Your task to perform on an android device: What's on the menu at Papa John's? Image 0: 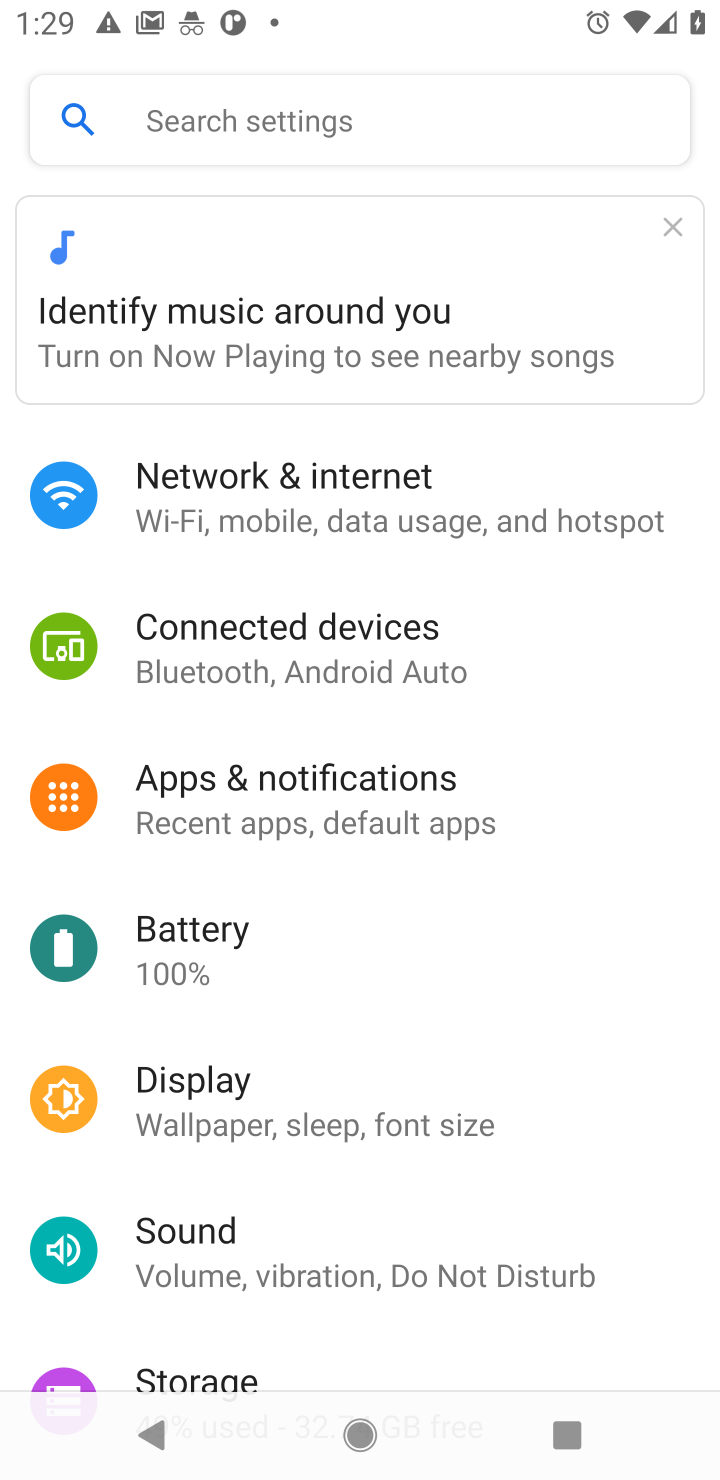
Step 0: press home button
Your task to perform on an android device: What's on the menu at Papa John's? Image 1: 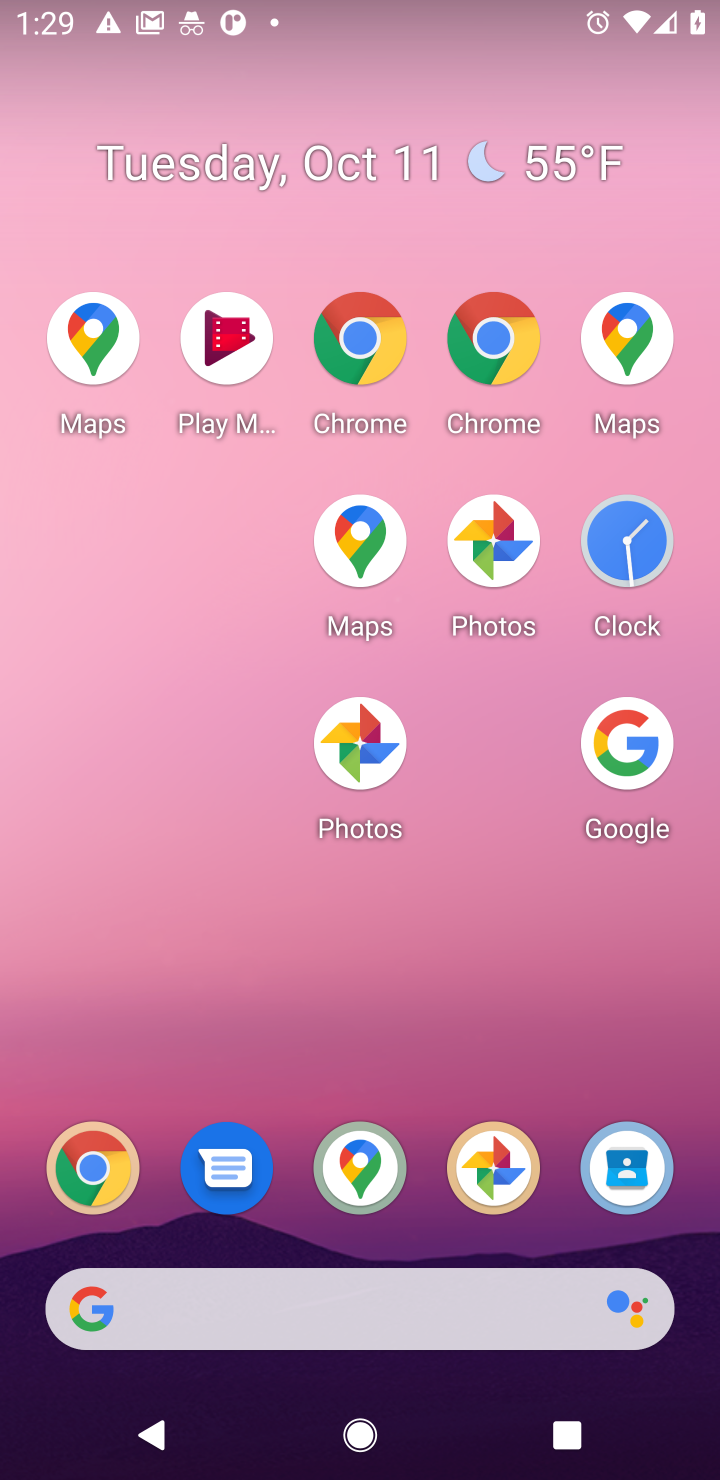
Step 1: drag from (442, 1224) to (574, 749)
Your task to perform on an android device: What's on the menu at Papa John's? Image 2: 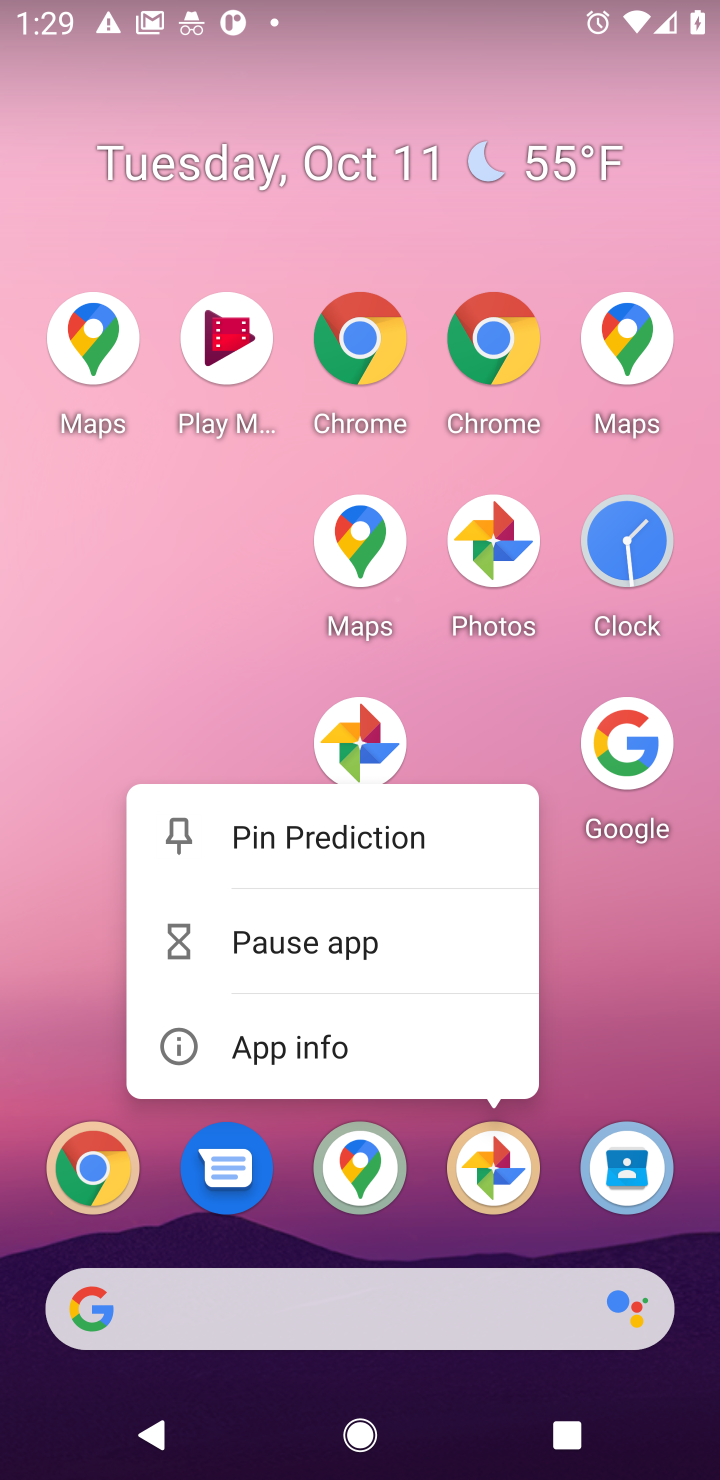
Step 2: click (243, 668)
Your task to perform on an android device: What's on the menu at Papa John's? Image 3: 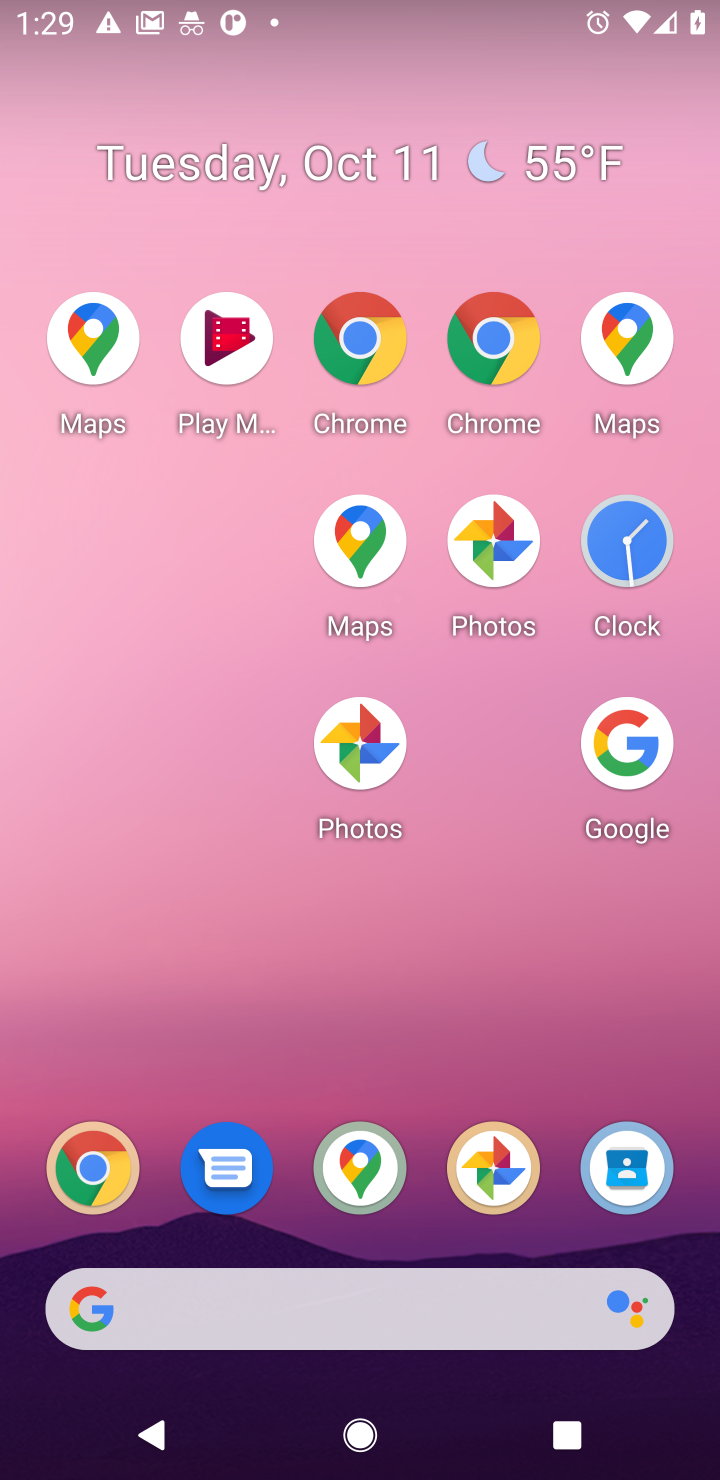
Step 3: drag from (376, 943) to (386, 278)
Your task to perform on an android device: What's on the menu at Papa John's? Image 4: 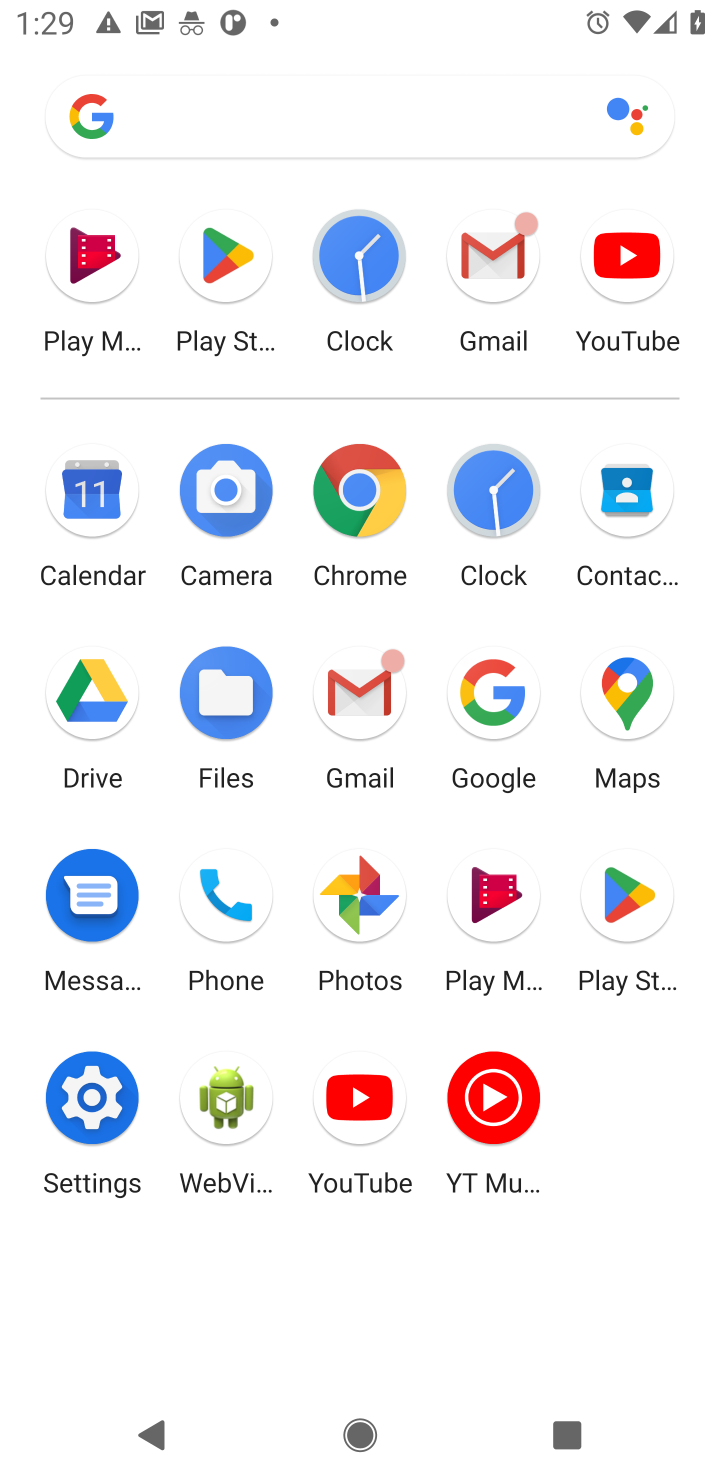
Step 4: click (507, 728)
Your task to perform on an android device: What's on the menu at Papa John's? Image 5: 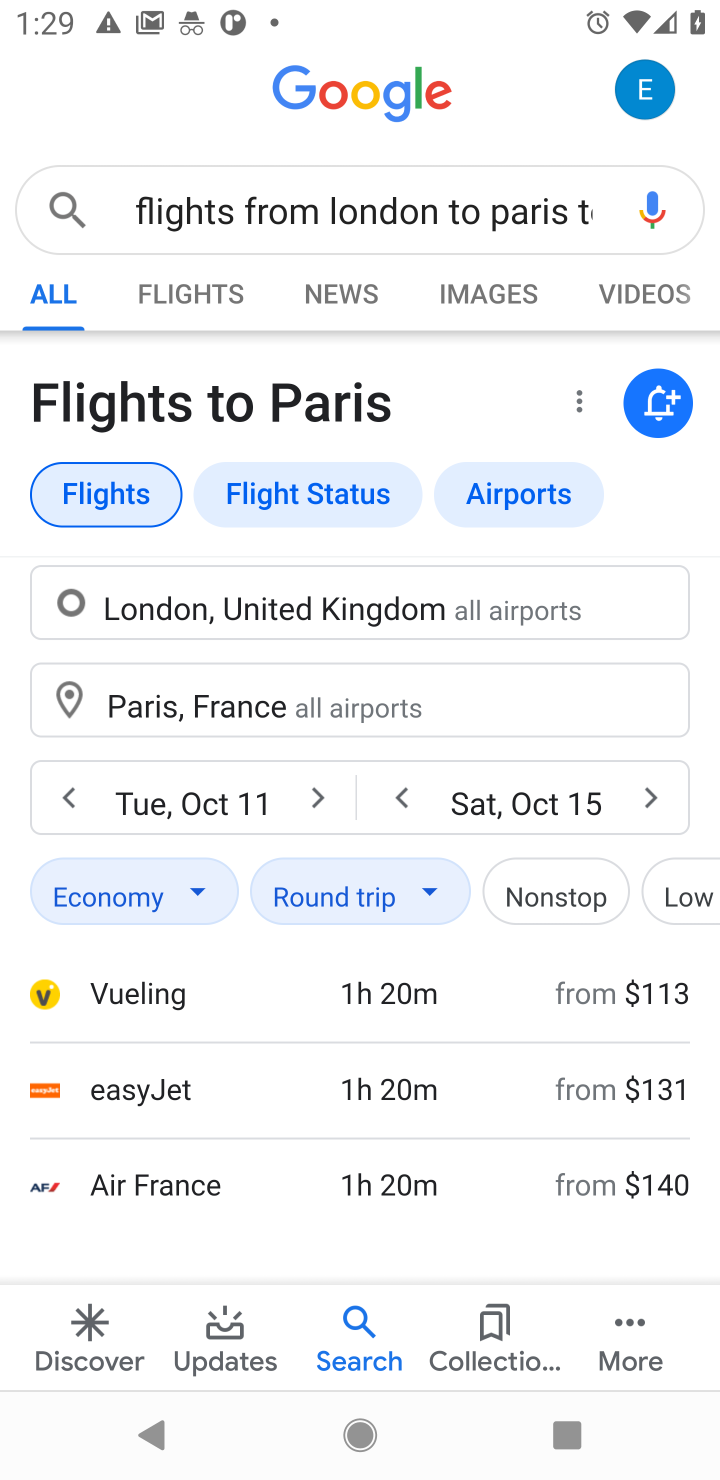
Step 5: click (549, 209)
Your task to perform on an android device: What's on the menu at Papa John's? Image 6: 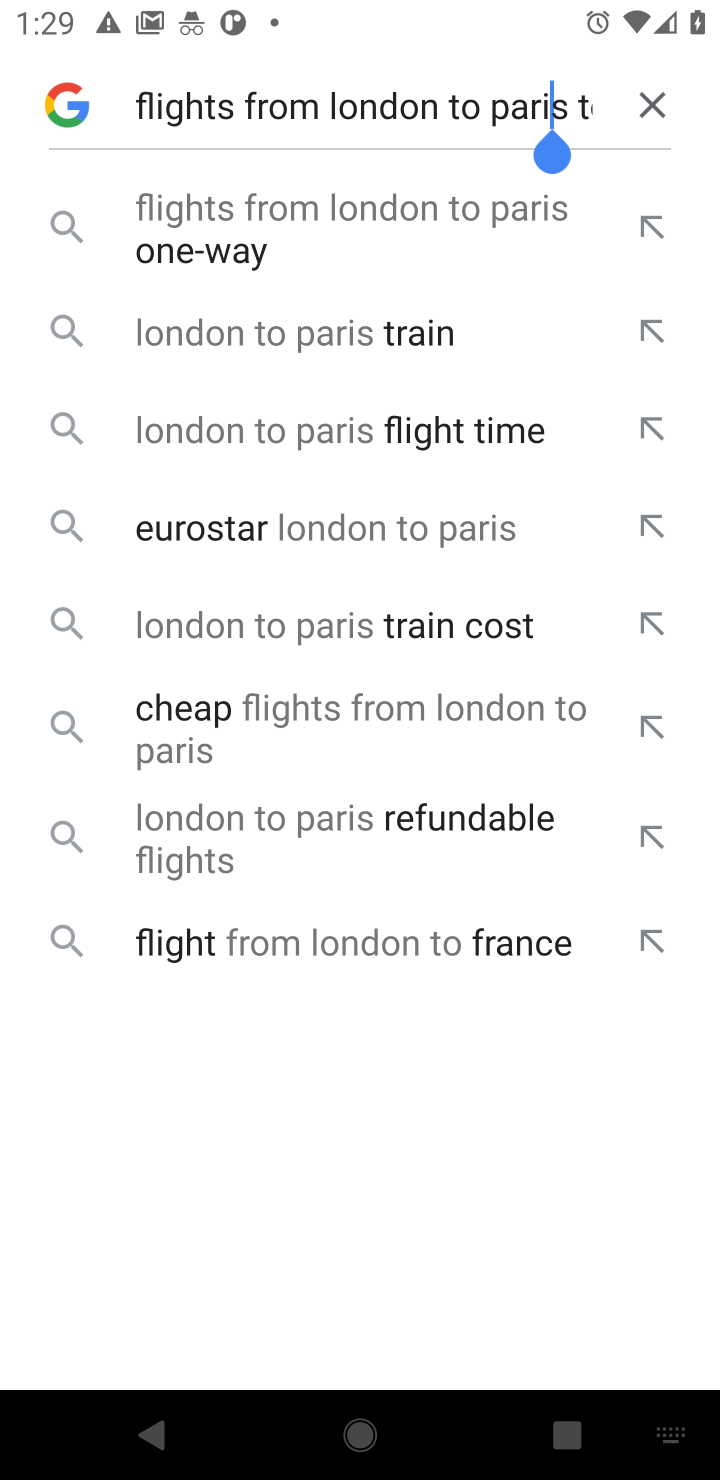
Step 6: click (641, 106)
Your task to perform on an android device: What's on the menu at Papa John's? Image 7: 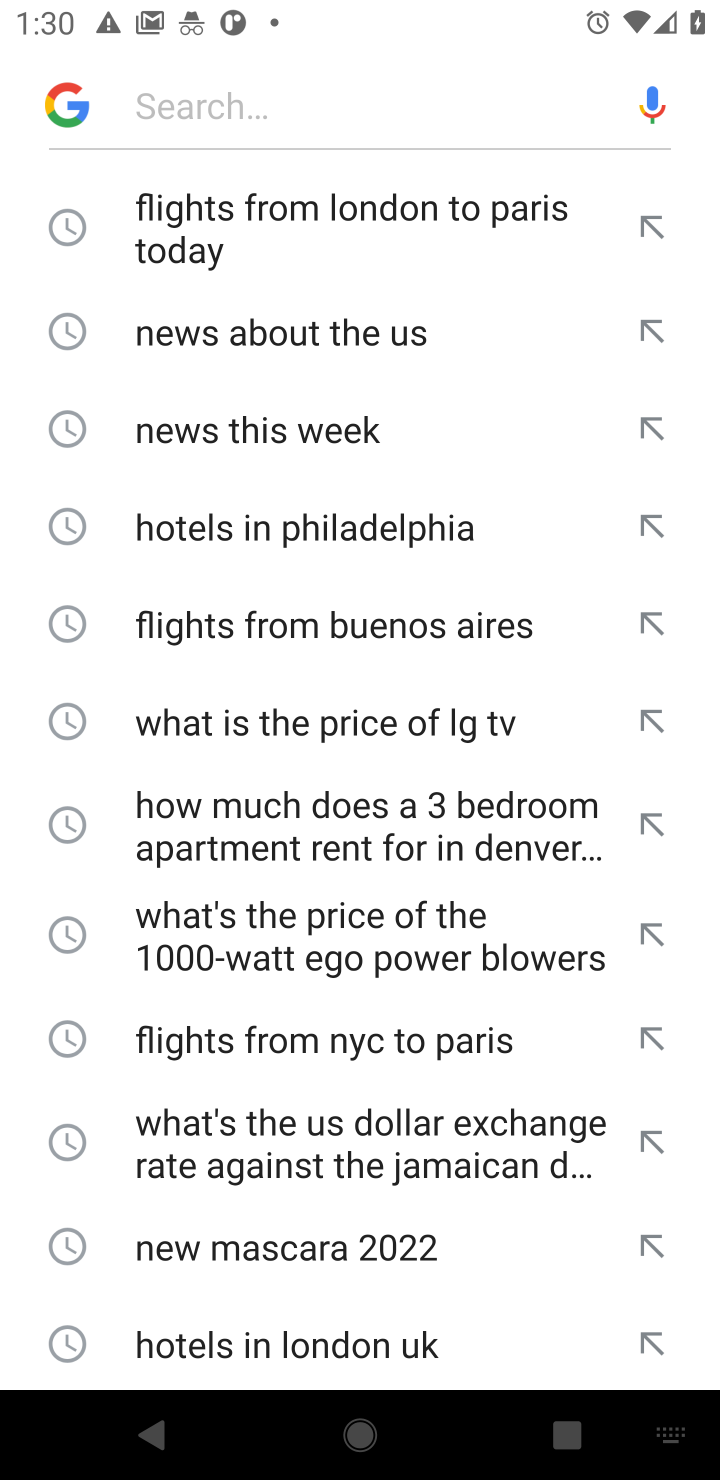
Step 7: type "What's on the menu at Papa John's?"
Your task to perform on an android device: What's on the menu at Papa John's? Image 8: 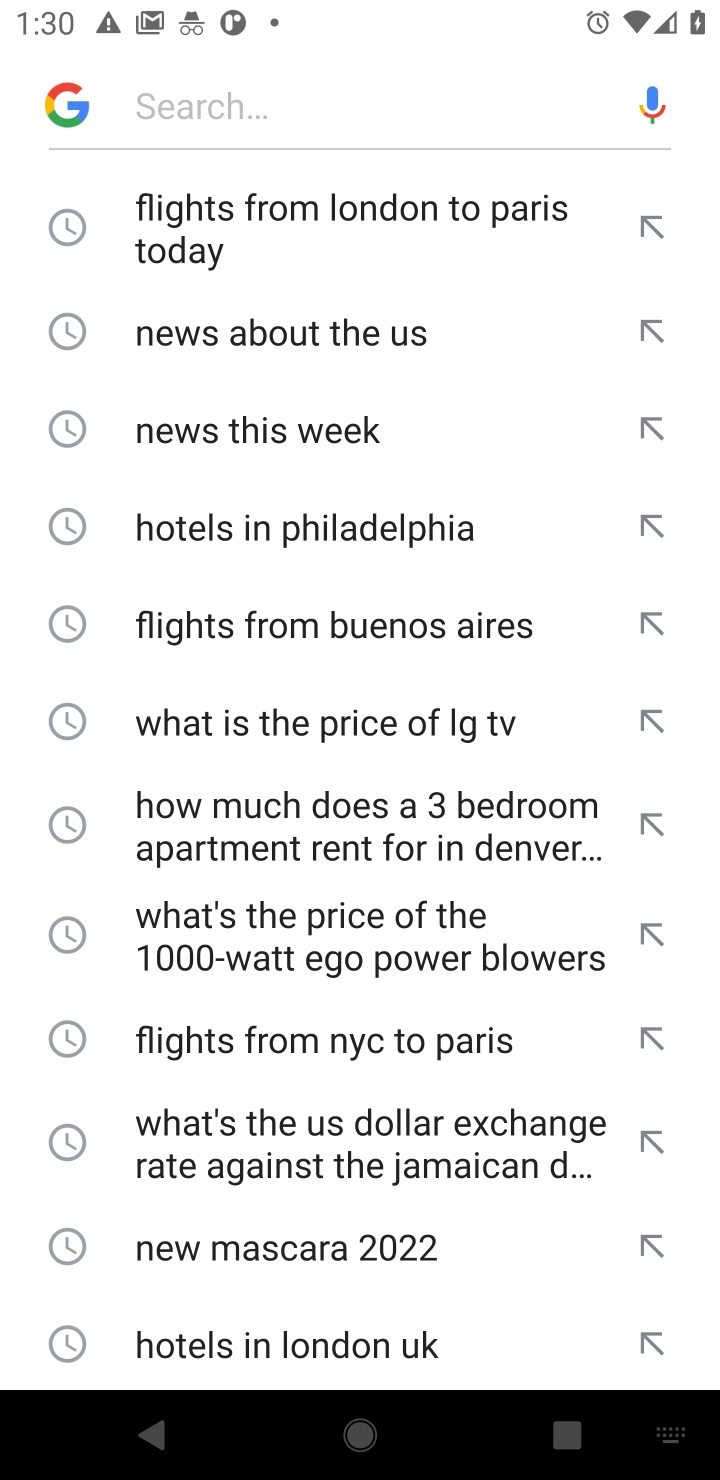
Step 8: click (404, 109)
Your task to perform on an android device: What's on the menu at Papa John's? Image 9: 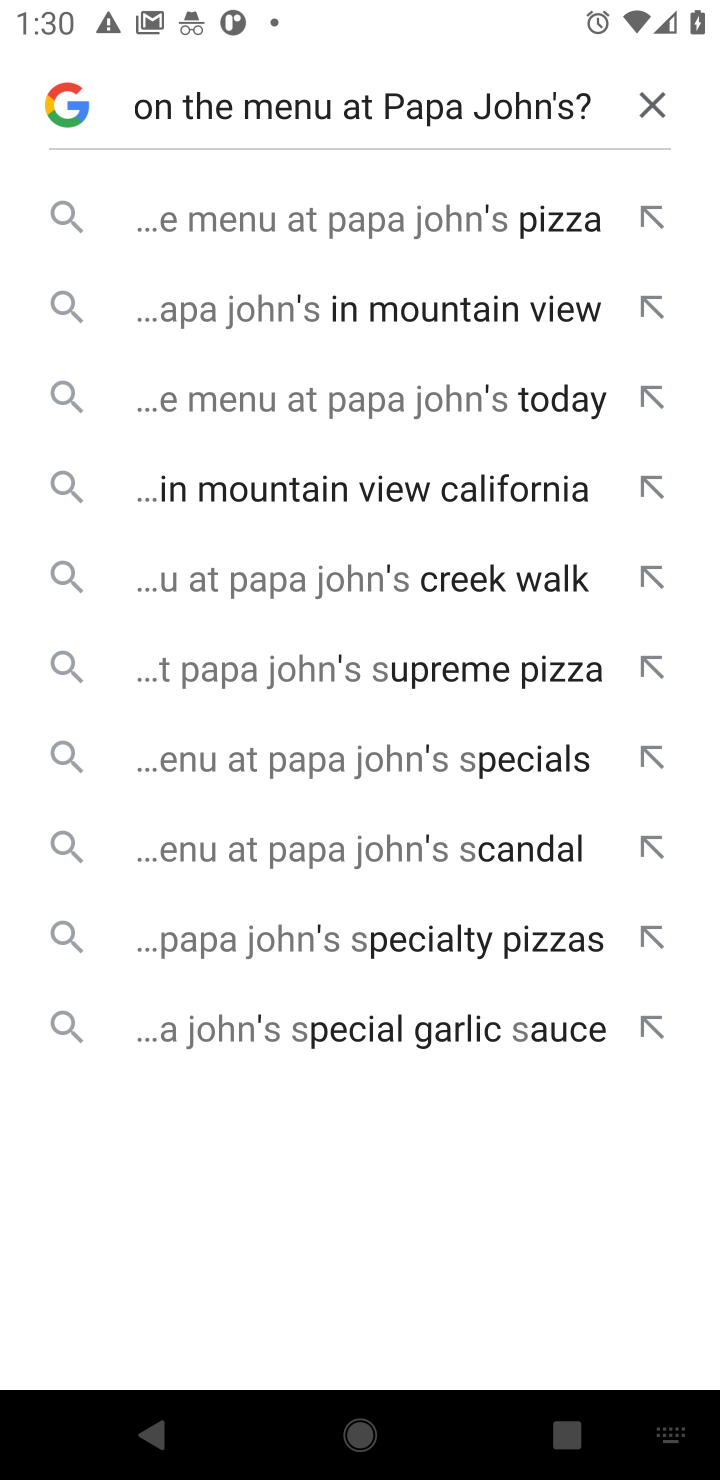
Step 9: click (474, 399)
Your task to perform on an android device: What's on the menu at Papa John's? Image 10: 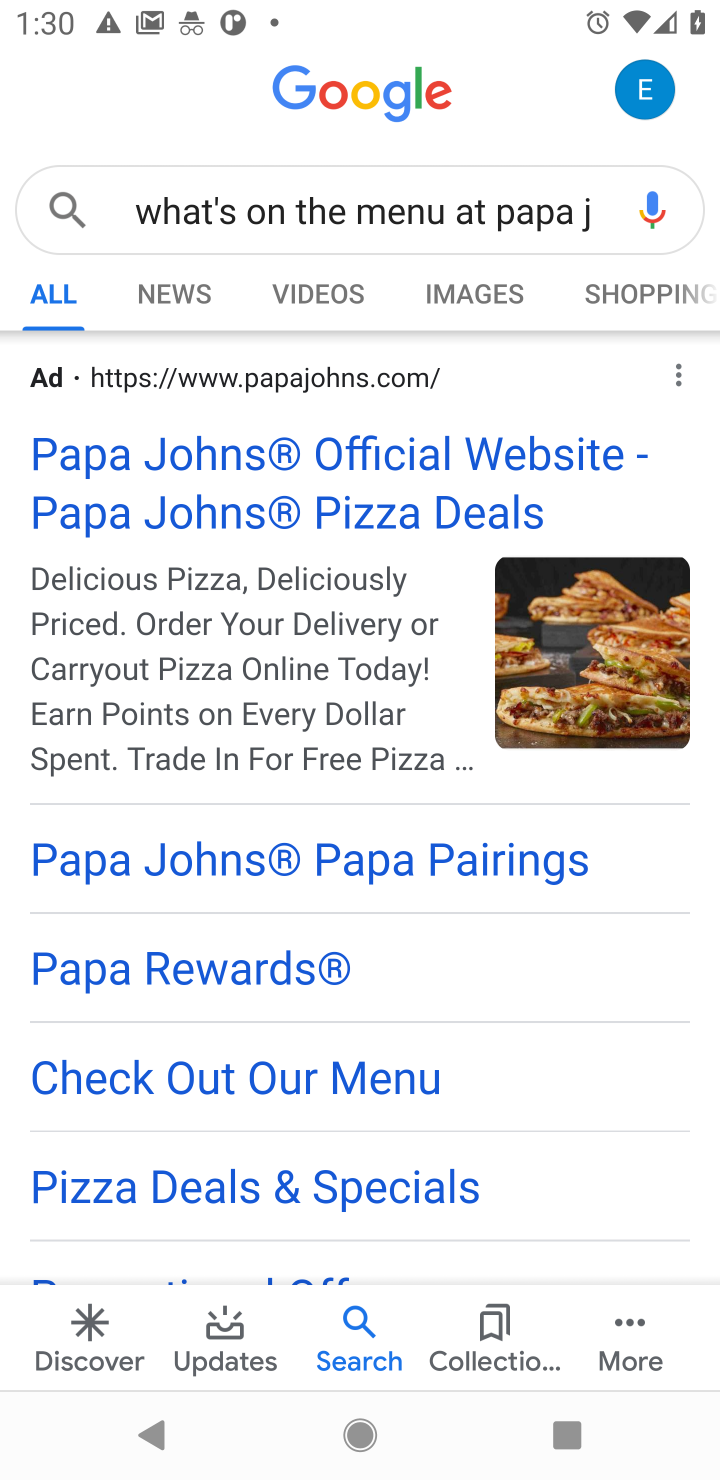
Step 10: click (391, 461)
Your task to perform on an android device: What's on the menu at Papa John's? Image 11: 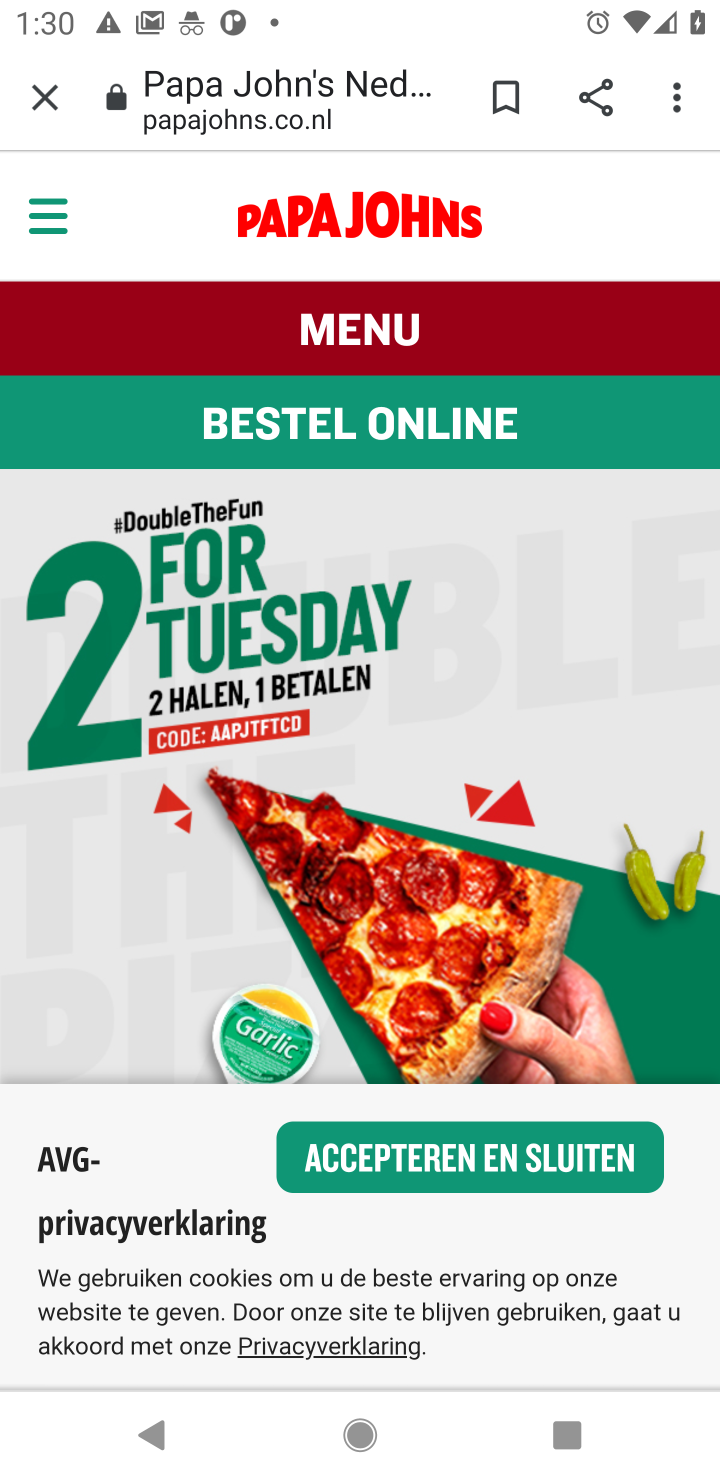
Step 11: task complete